Your task to perform on an android device: search for starred emails in the gmail app Image 0: 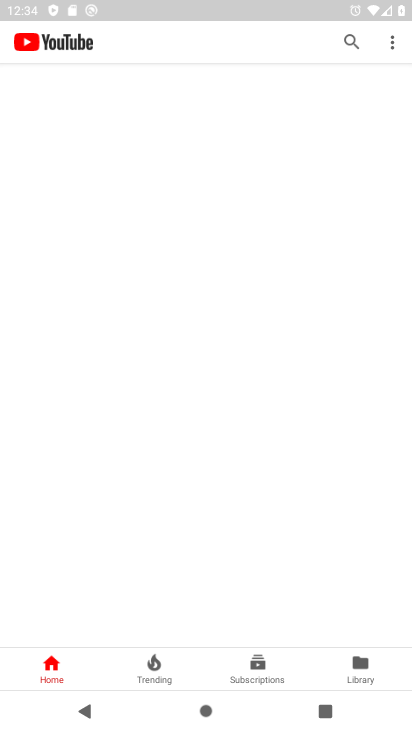
Step 0: drag from (168, 640) to (152, 489)
Your task to perform on an android device: search for starred emails in the gmail app Image 1: 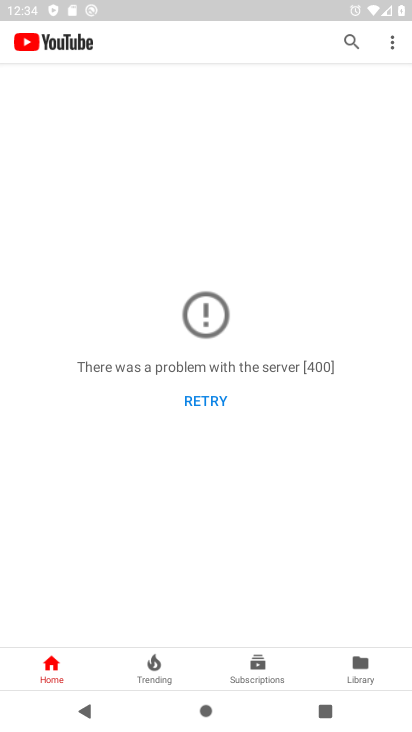
Step 1: press home button
Your task to perform on an android device: search for starred emails in the gmail app Image 2: 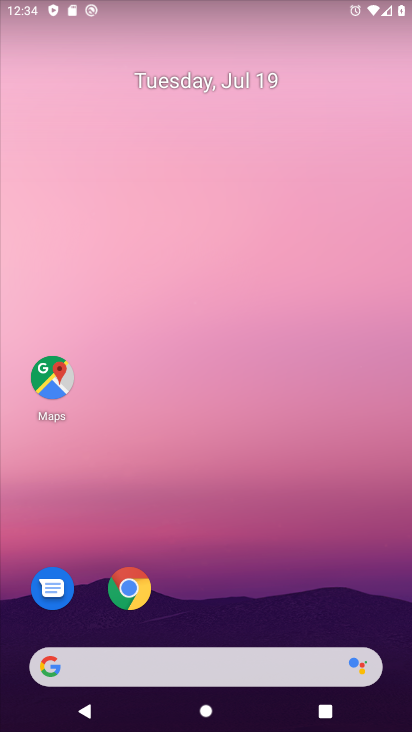
Step 2: drag from (249, 635) to (302, 30)
Your task to perform on an android device: search for starred emails in the gmail app Image 3: 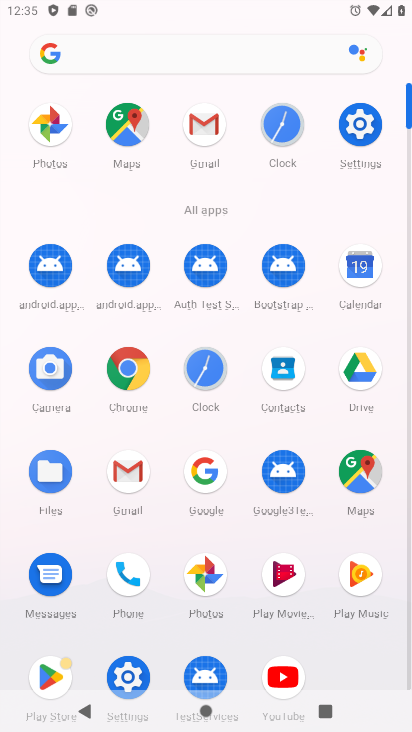
Step 3: click (202, 126)
Your task to perform on an android device: search for starred emails in the gmail app Image 4: 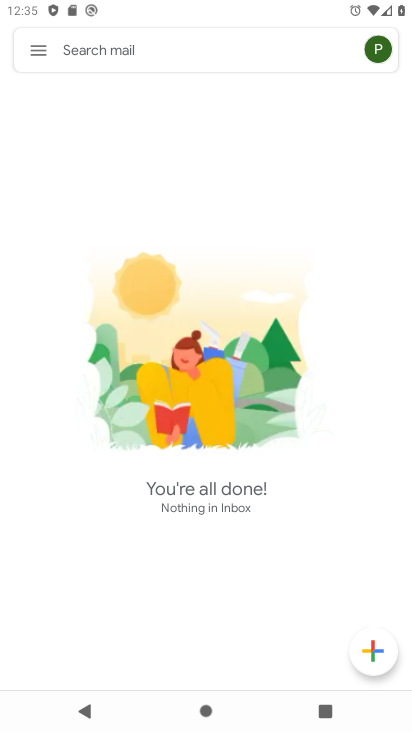
Step 4: click (37, 47)
Your task to perform on an android device: search for starred emails in the gmail app Image 5: 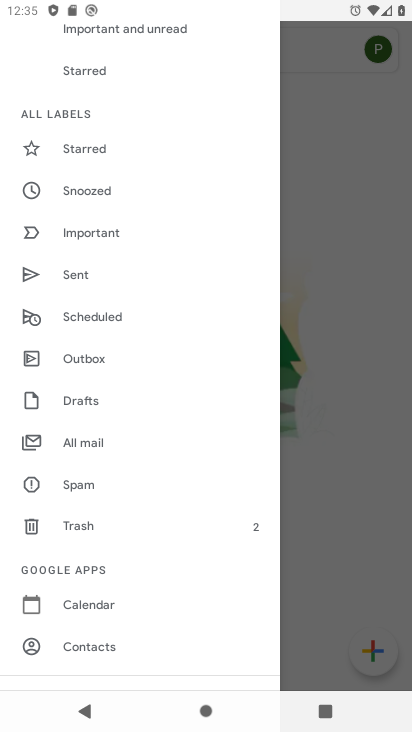
Step 5: click (82, 151)
Your task to perform on an android device: search for starred emails in the gmail app Image 6: 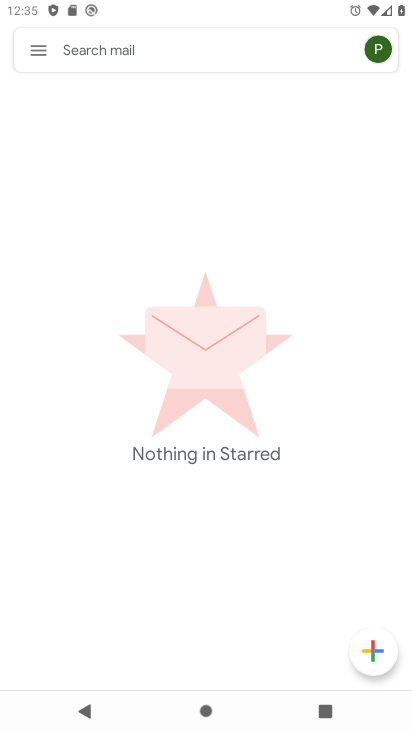
Step 6: task complete